Your task to perform on an android device: Search for pizza restaurants on Maps Image 0: 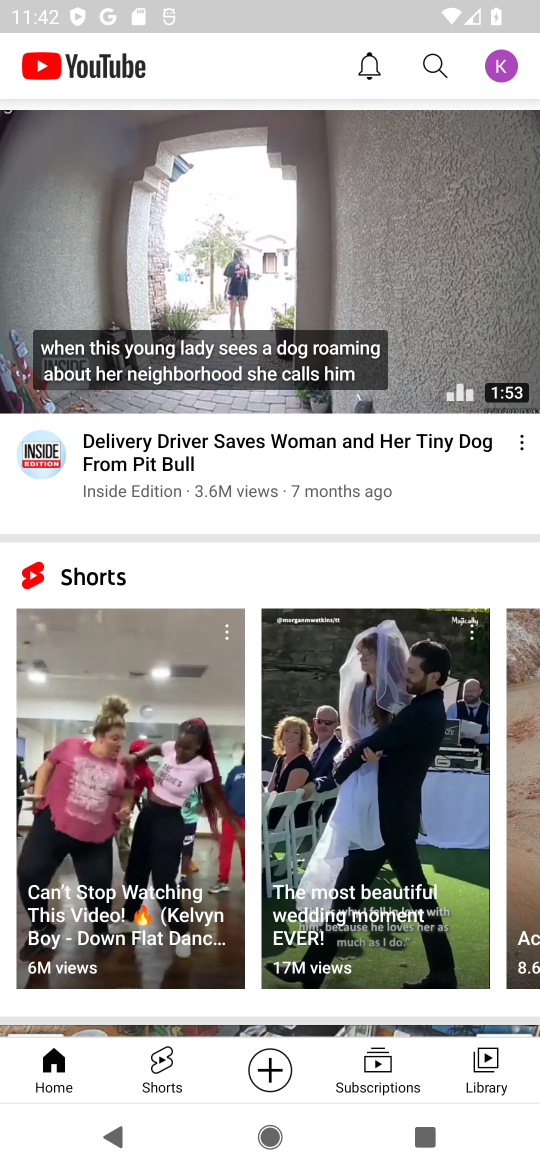
Step 0: press home button
Your task to perform on an android device: Search for pizza restaurants on Maps Image 1: 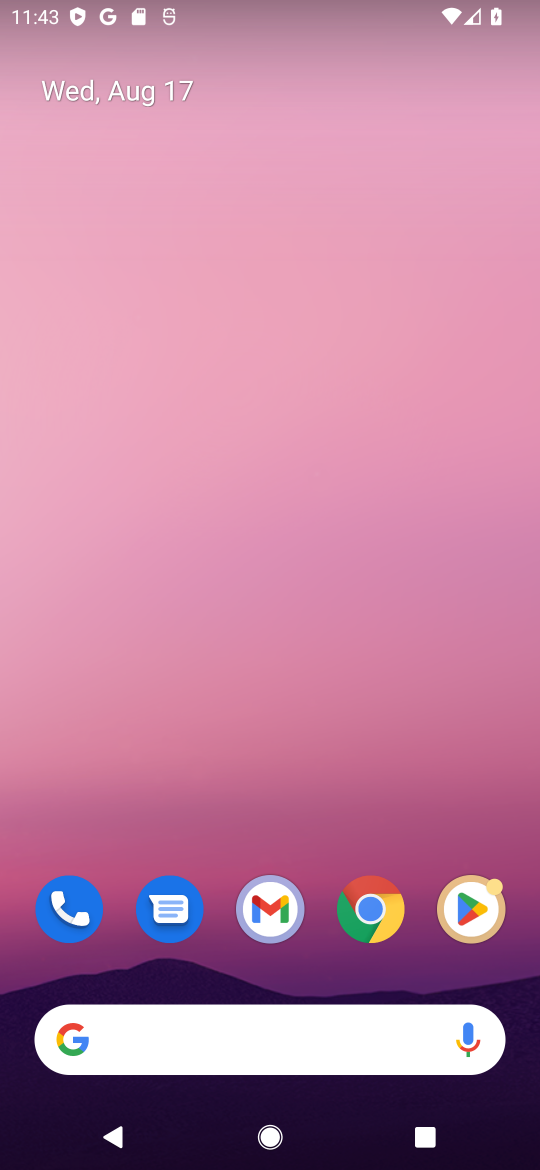
Step 1: drag from (275, 789) to (249, 124)
Your task to perform on an android device: Search for pizza restaurants on Maps Image 2: 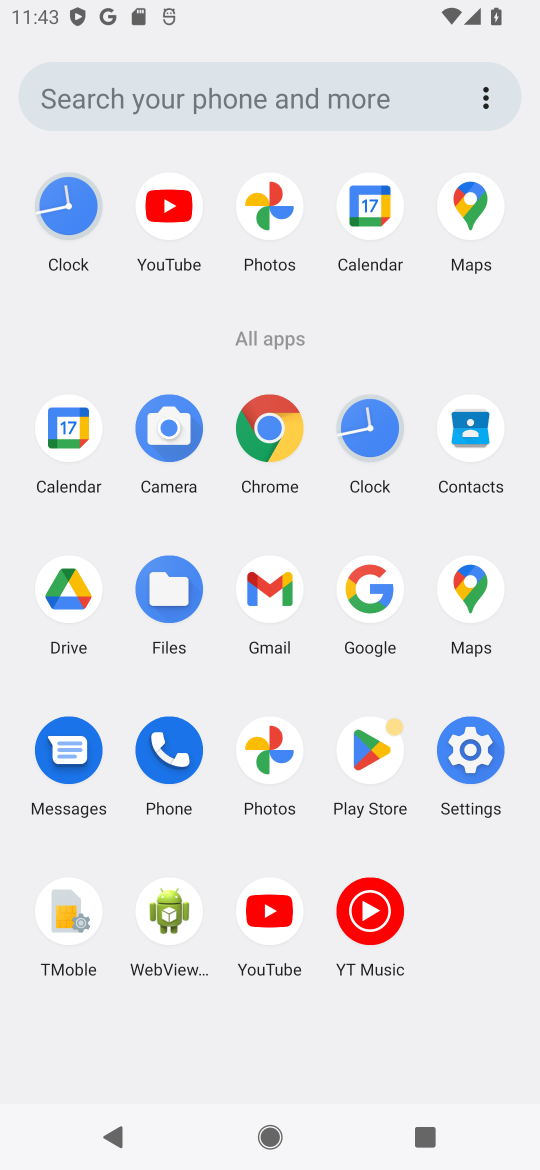
Step 2: click (473, 192)
Your task to perform on an android device: Search for pizza restaurants on Maps Image 3: 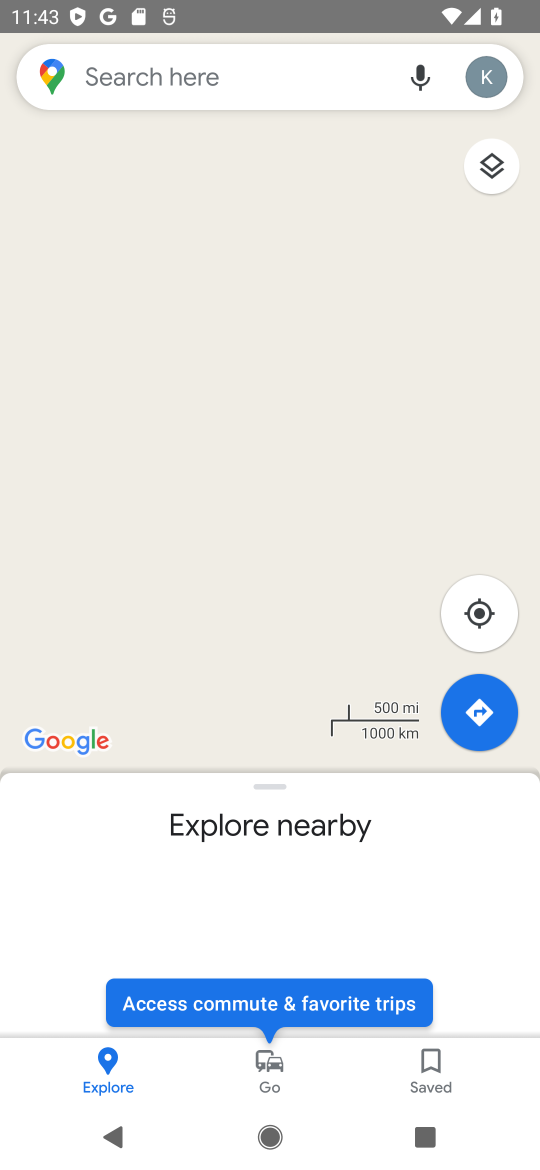
Step 3: click (244, 72)
Your task to perform on an android device: Search for pizza restaurants on Maps Image 4: 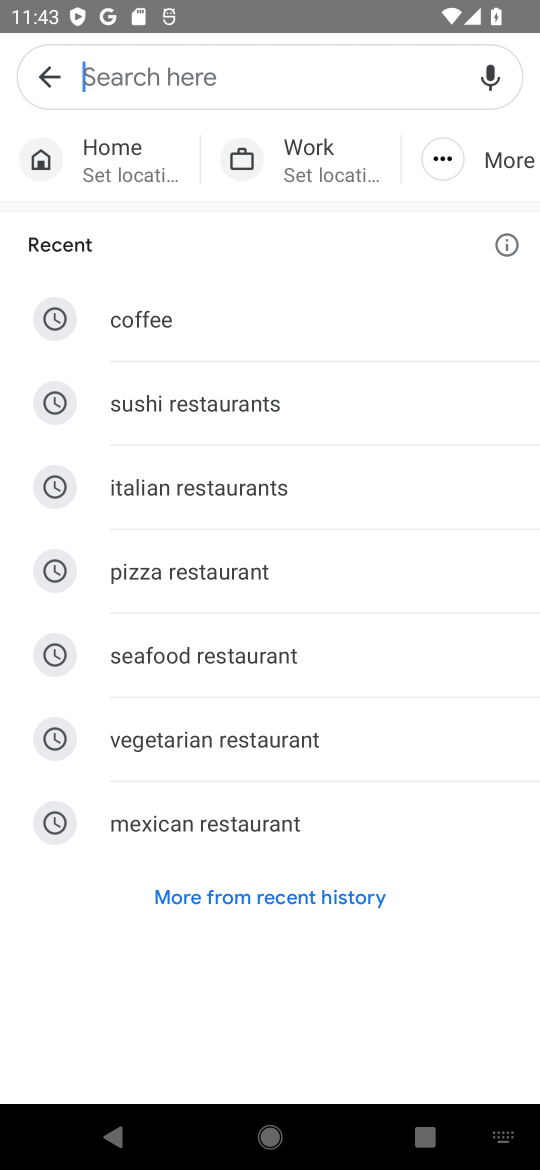
Step 4: click (105, 65)
Your task to perform on an android device: Search for pizza restaurants on Maps Image 5: 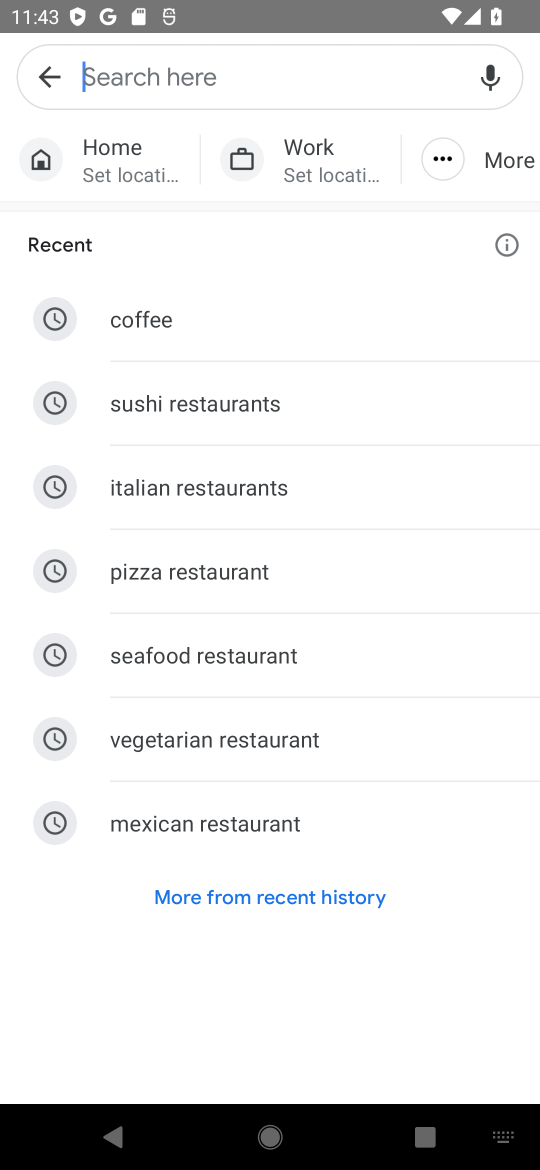
Step 5: click (173, 569)
Your task to perform on an android device: Search for pizza restaurants on Maps Image 6: 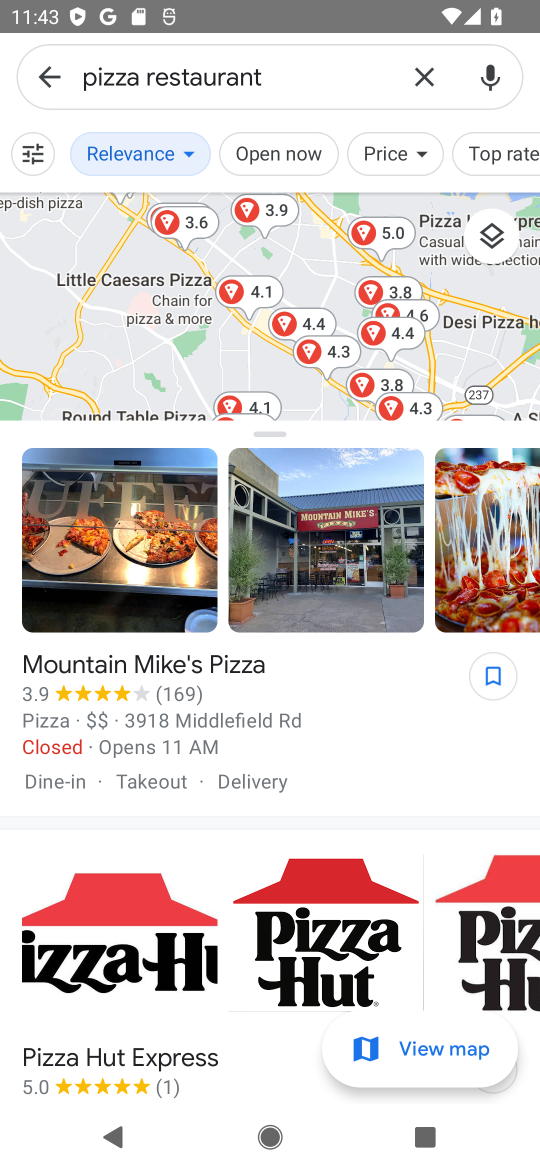
Step 6: task complete